Your task to perform on an android device: turn pop-ups on in chrome Image 0: 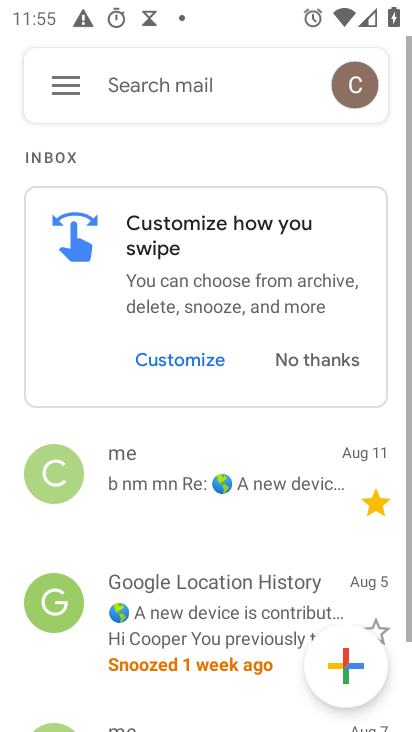
Step 0: press home button
Your task to perform on an android device: turn pop-ups on in chrome Image 1: 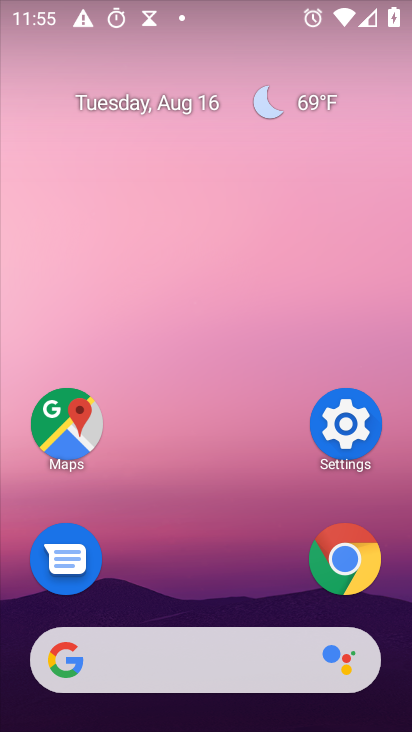
Step 1: click (339, 562)
Your task to perform on an android device: turn pop-ups on in chrome Image 2: 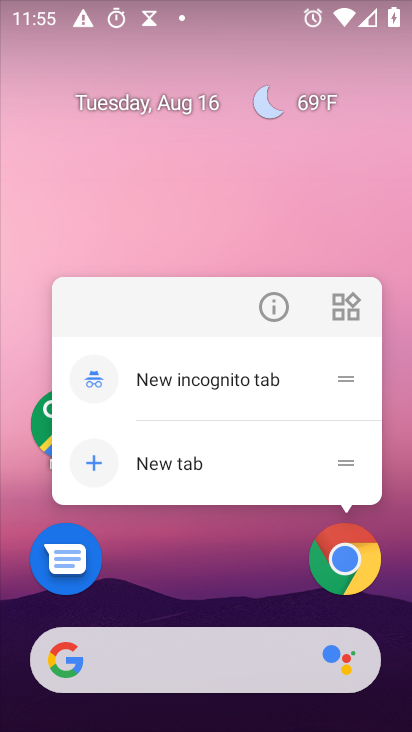
Step 2: click (340, 562)
Your task to perform on an android device: turn pop-ups on in chrome Image 3: 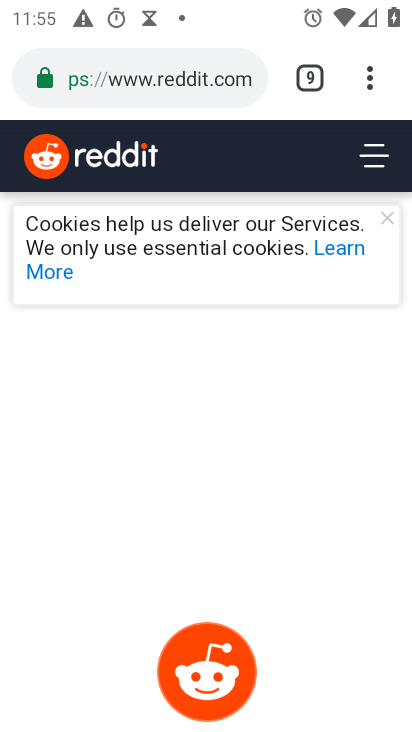
Step 3: drag from (367, 83) to (192, 615)
Your task to perform on an android device: turn pop-ups on in chrome Image 4: 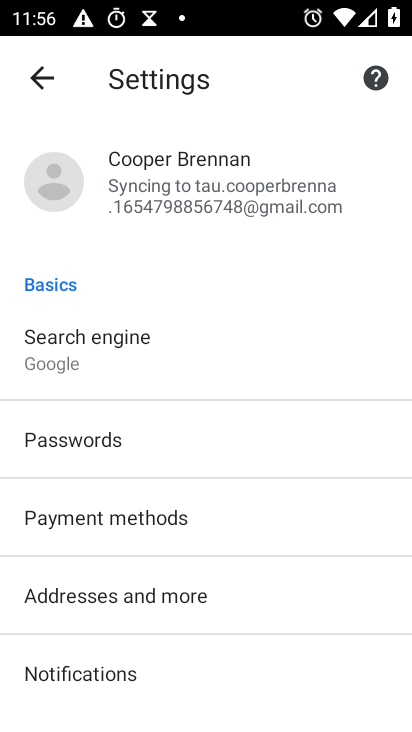
Step 4: drag from (204, 644) to (277, 178)
Your task to perform on an android device: turn pop-ups on in chrome Image 5: 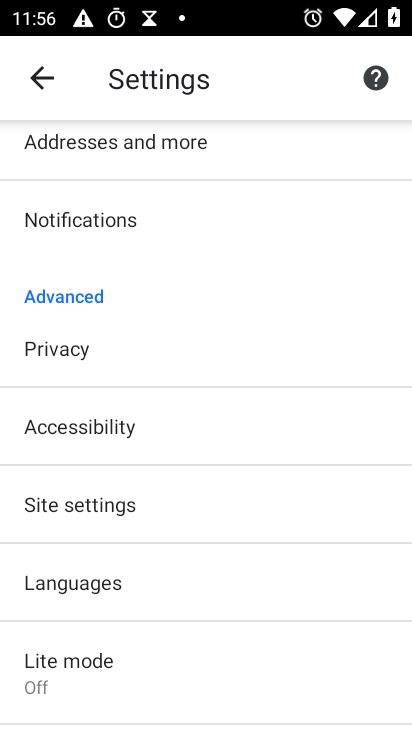
Step 5: click (109, 516)
Your task to perform on an android device: turn pop-ups on in chrome Image 6: 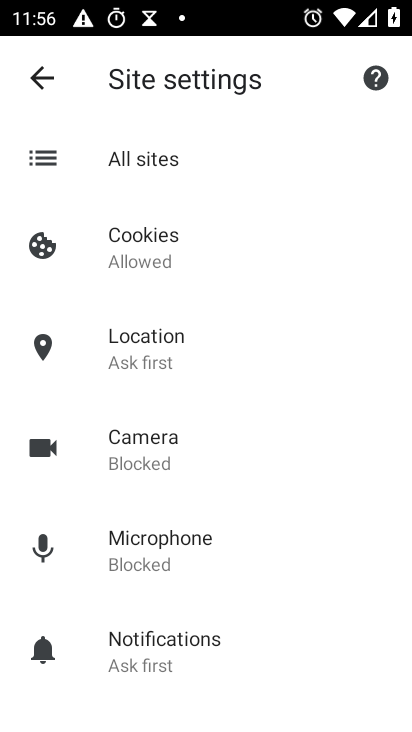
Step 6: drag from (284, 615) to (295, 187)
Your task to perform on an android device: turn pop-ups on in chrome Image 7: 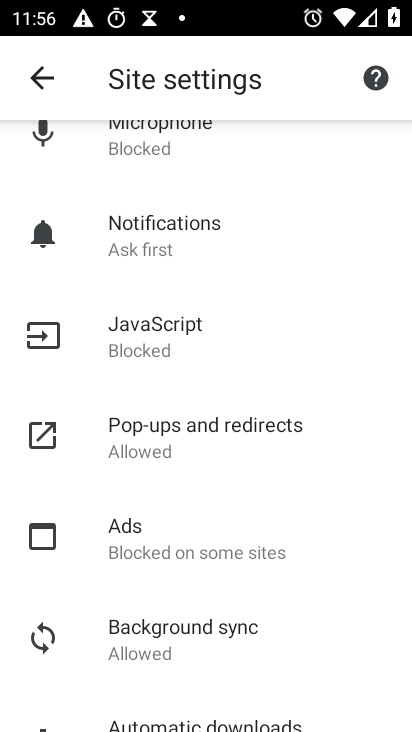
Step 7: click (170, 453)
Your task to perform on an android device: turn pop-ups on in chrome Image 8: 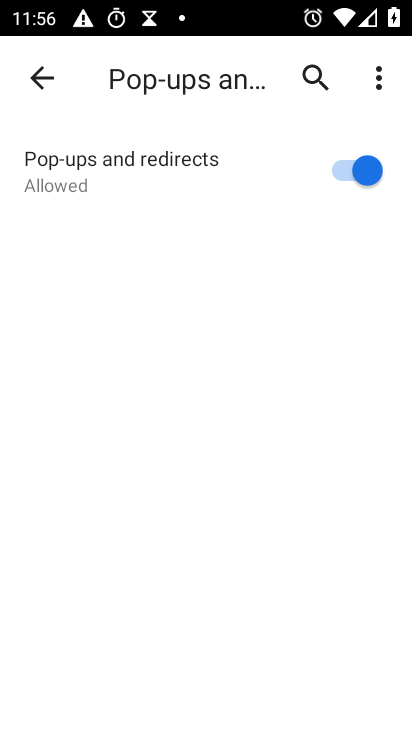
Step 8: task complete